Your task to perform on an android device: Open Maps and search for coffee Image 0: 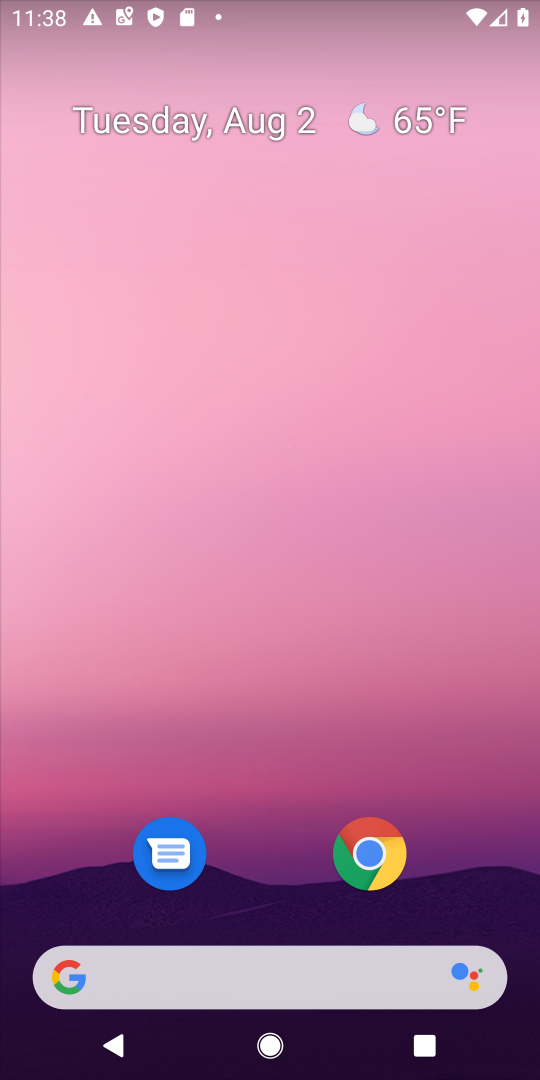
Step 0: press home button
Your task to perform on an android device: Open Maps and search for coffee Image 1: 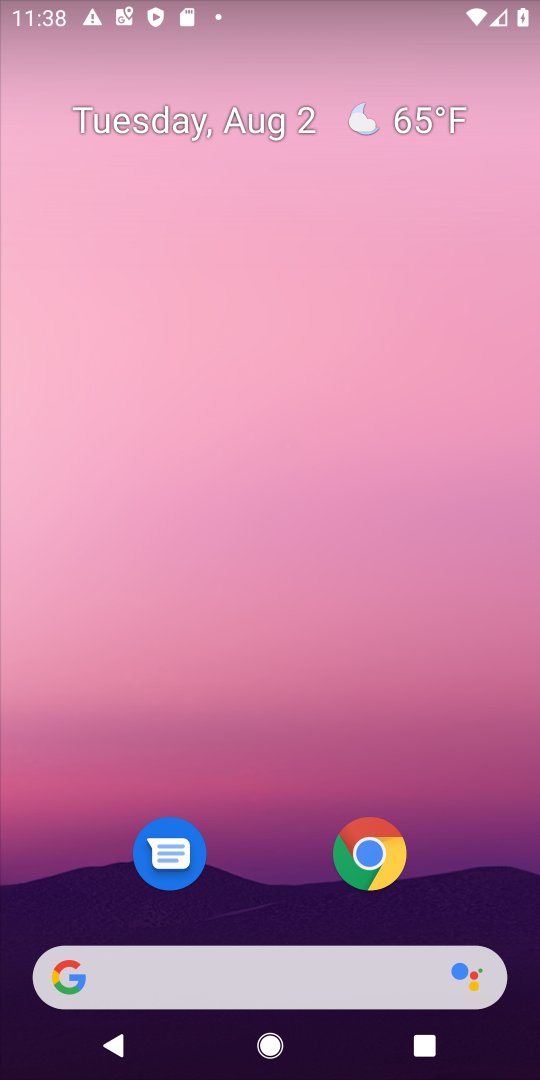
Step 1: drag from (248, 921) to (100, 116)
Your task to perform on an android device: Open Maps and search for coffee Image 2: 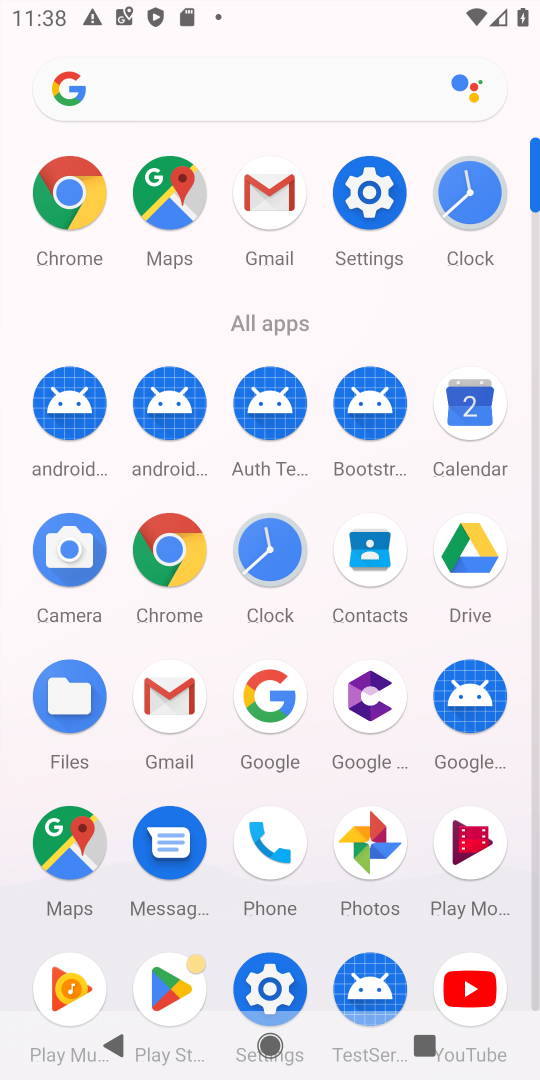
Step 2: click (164, 183)
Your task to perform on an android device: Open Maps and search for coffee Image 3: 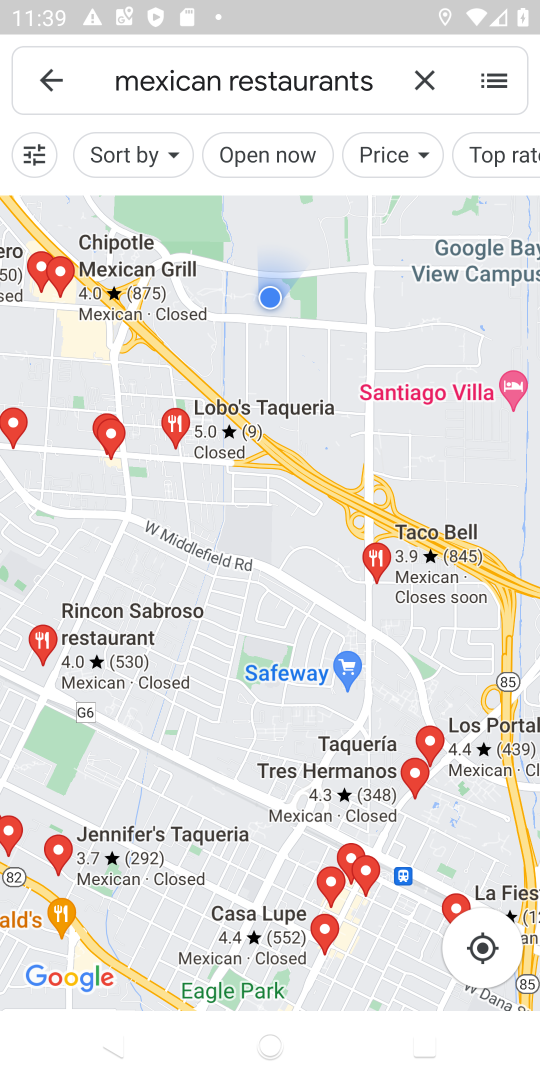
Step 3: click (424, 76)
Your task to perform on an android device: Open Maps and search for coffee Image 4: 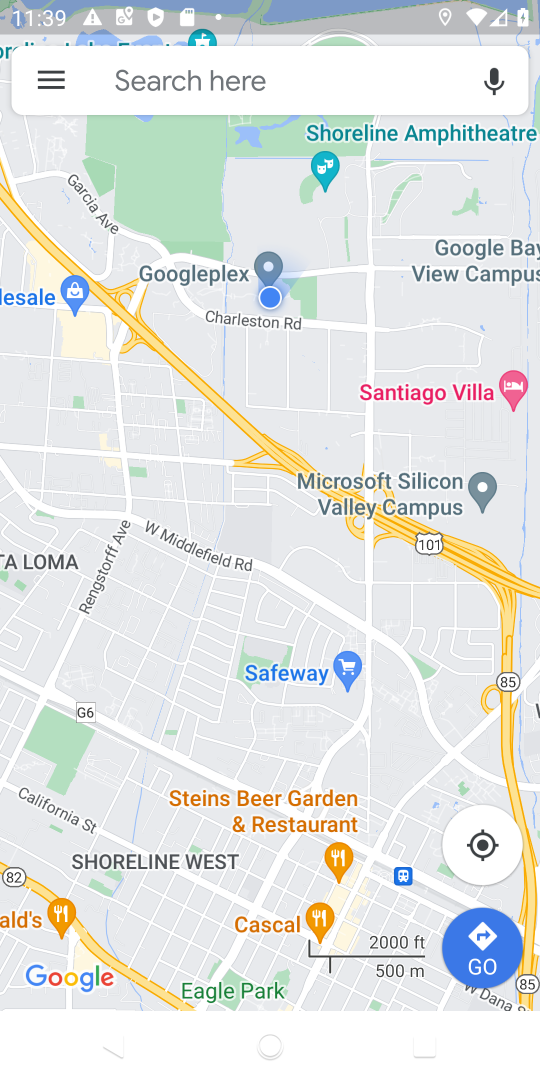
Step 4: click (274, 80)
Your task to perform on an android device: Open Maps and search for coffee Image 5: 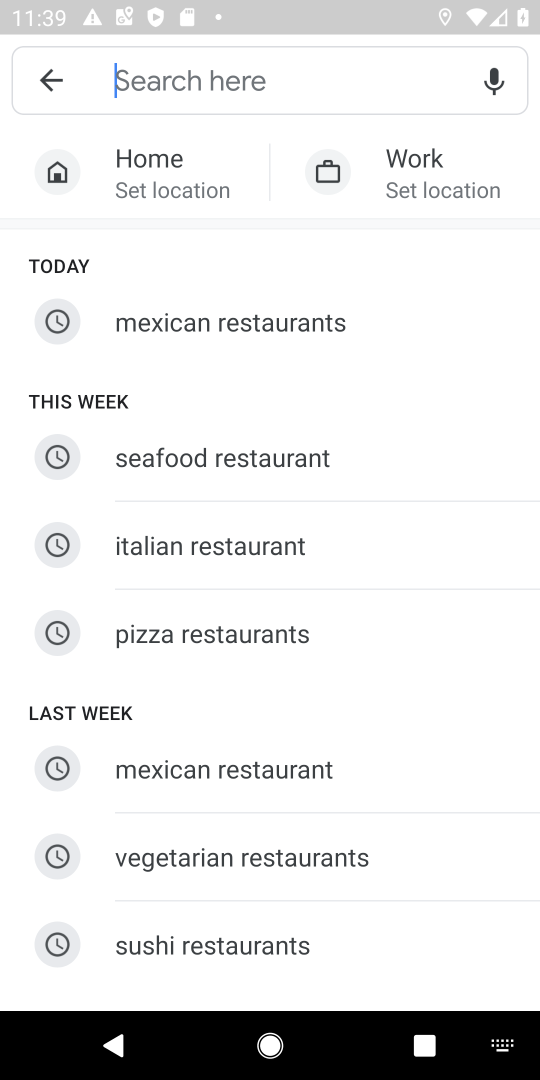
Step 5: type "coffee"
Your task to perform on an android device: Open Maps and search for coffee Image 6: 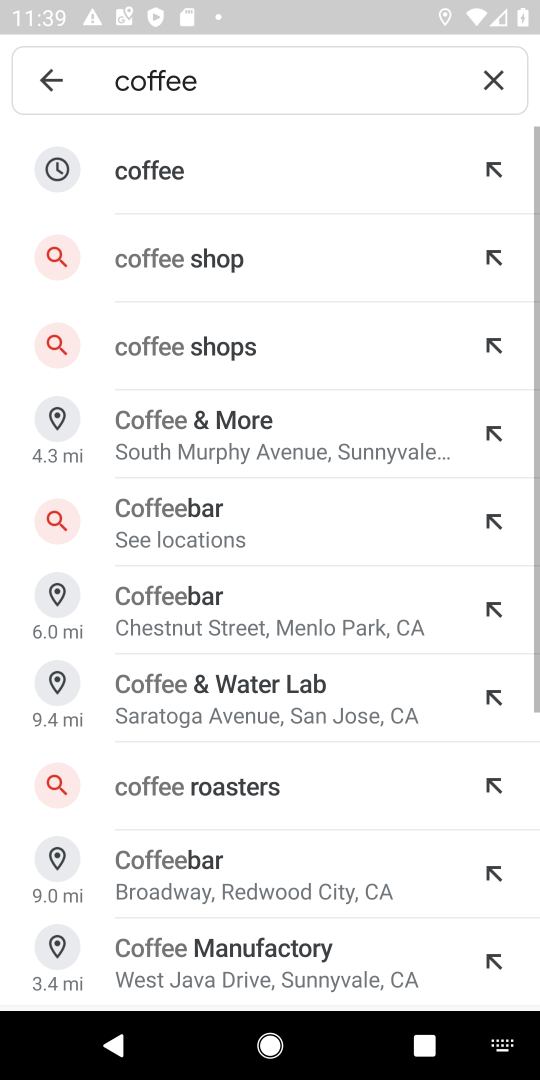
Step 6: click (193, 163)
Your task to perform on an android device: Open Maps and search for coffee Image 7: 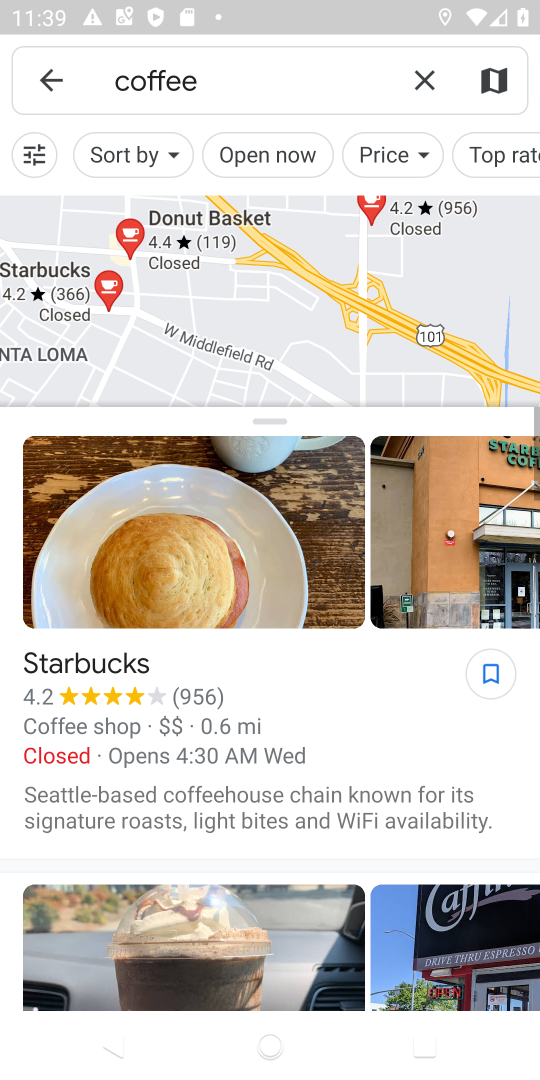
Step 7: task complete